Your task to perform on an android device: toggle improve location accuracy Image 0: 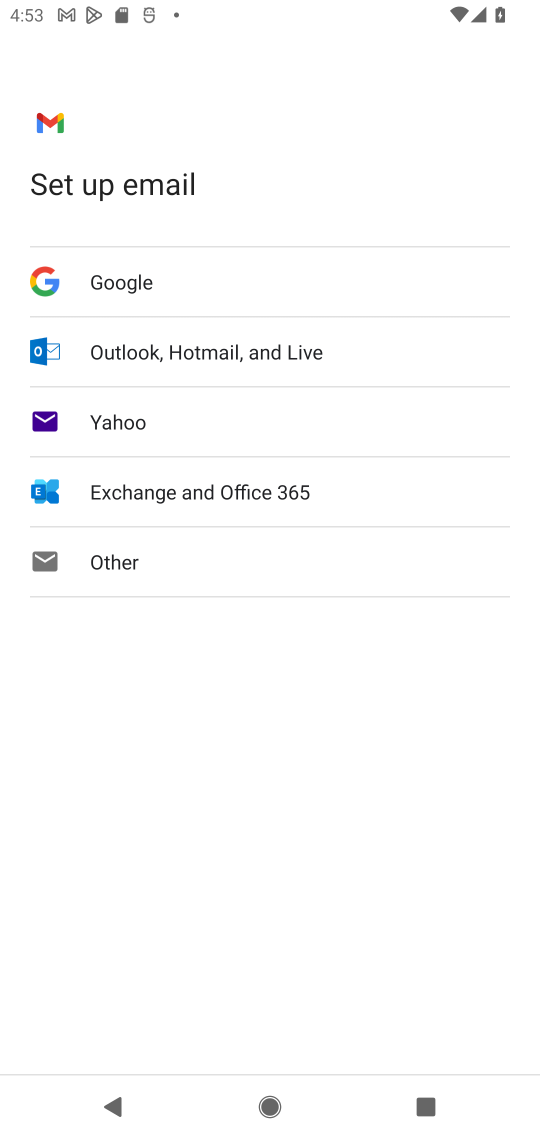
Step 0: press home button
Your task to perform on an android device: toggle improve location accuracy Image 1: 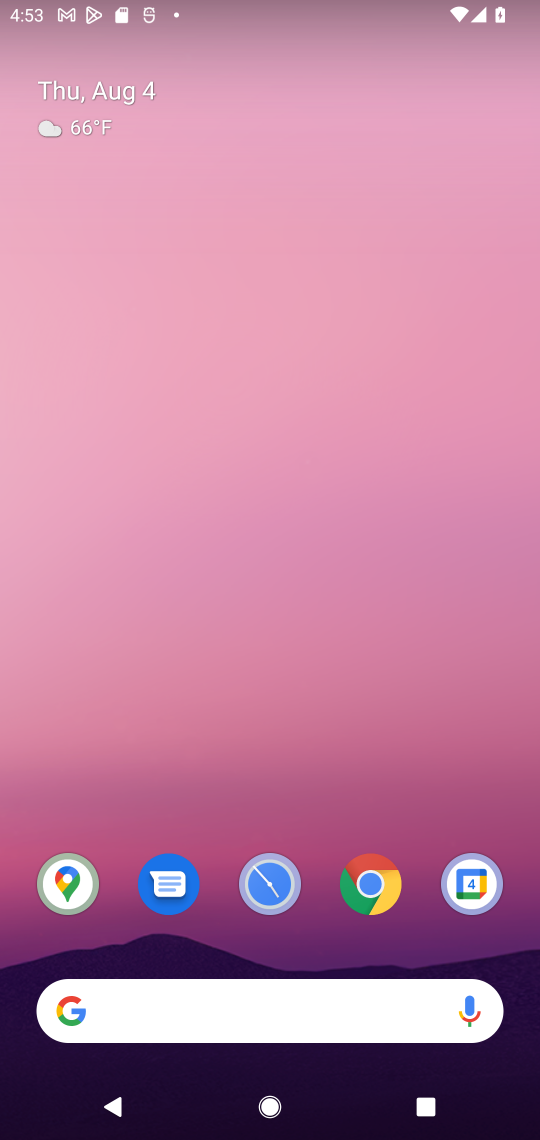
Step 1: drag from (229, 971) to (253, 159)
Your task to perform on an android device: toggle improve location accuracy Image 2: 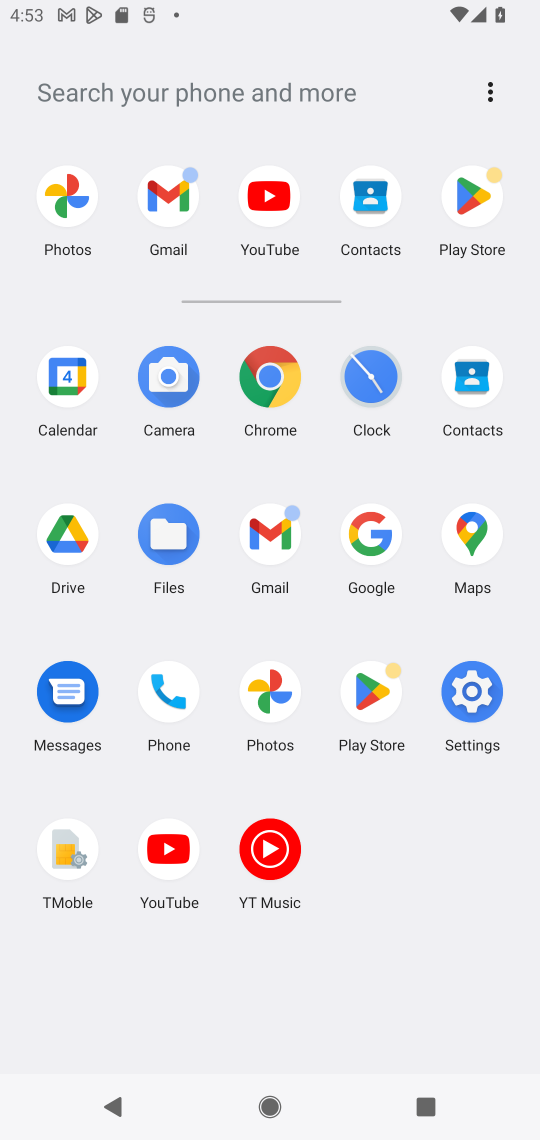
Step 2: click (457, 712)
Your task to perform on an android device: toggle improve location accuracy Image 3: 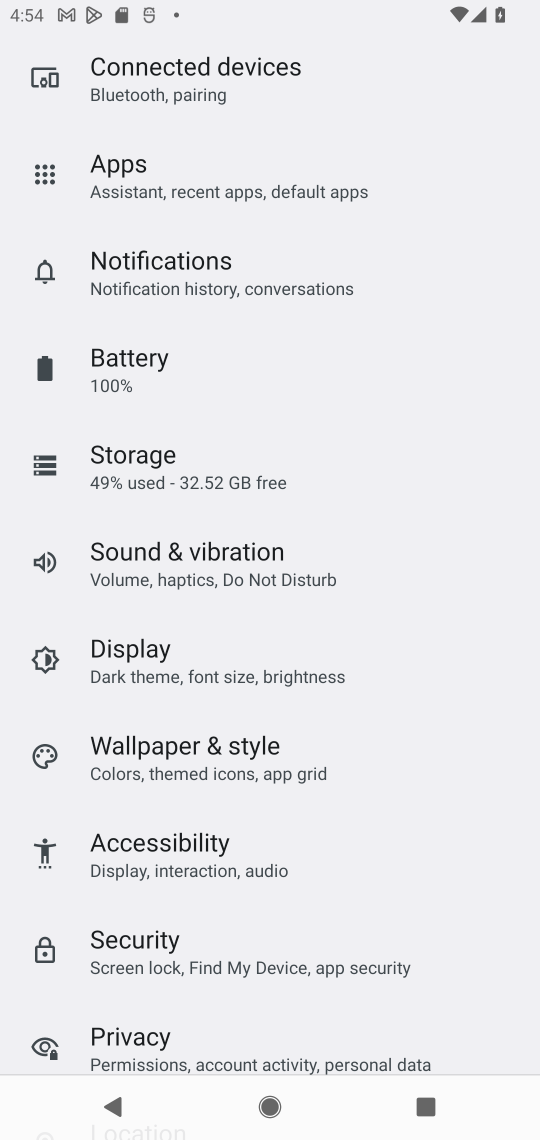
Step 3: task complete